Your task to perform on an android device: Go to Google Image 0: 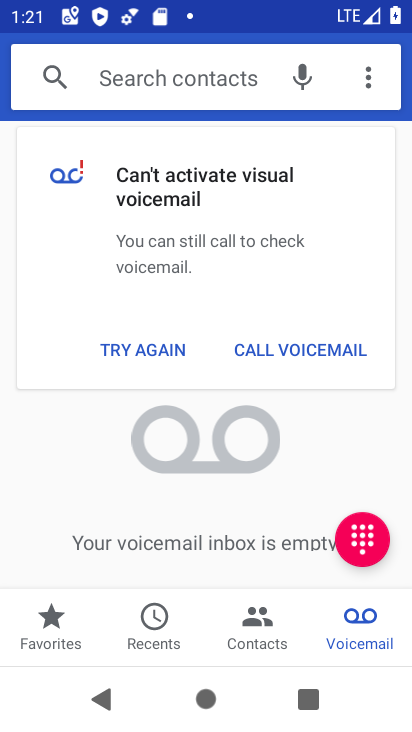
Step 0: press home button
Your task to perform on an android device: Go to Google Image 1: 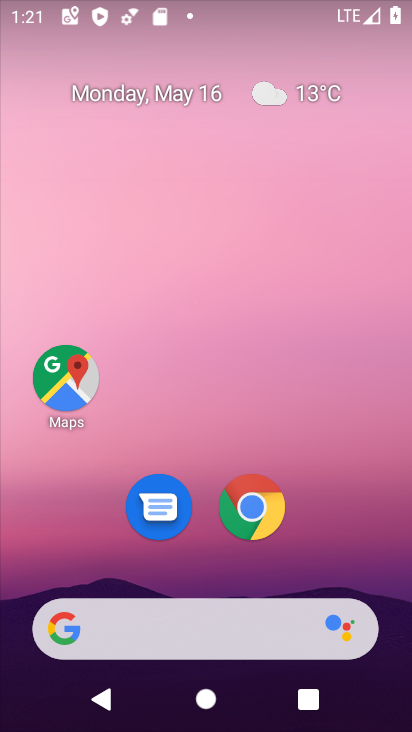
Step 1: drag from (324, 518) to (279, 53)
Your task to perform on an android device: Go to Google Image 2: 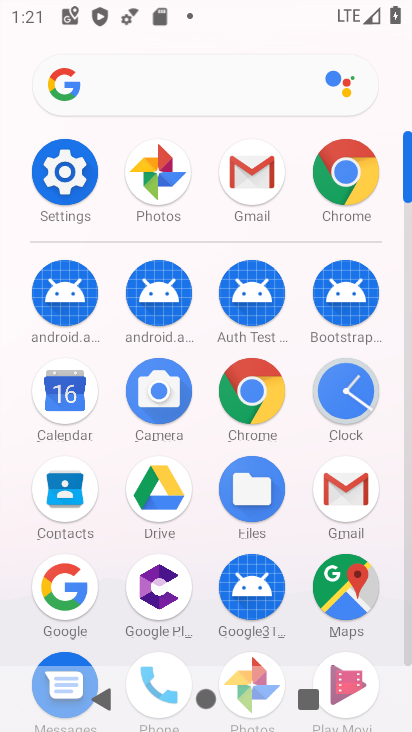
Step 2: click (65, 587)
Your task to perform on an android device: Go to Google Image 3: 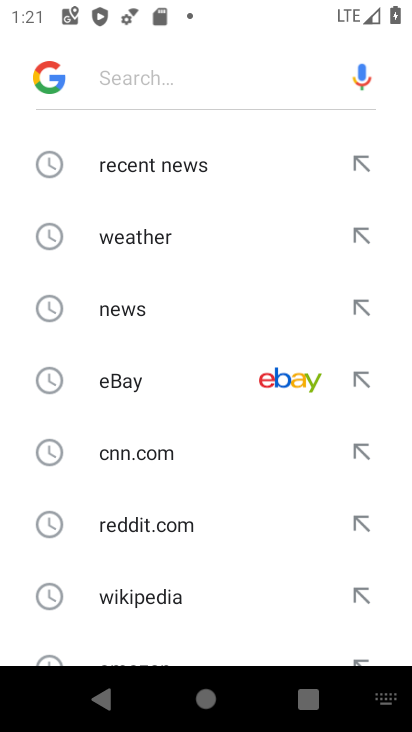
Step 3: task complete